Your task to perform on an android device: Open calendar and show me the third week of next month Image 0: 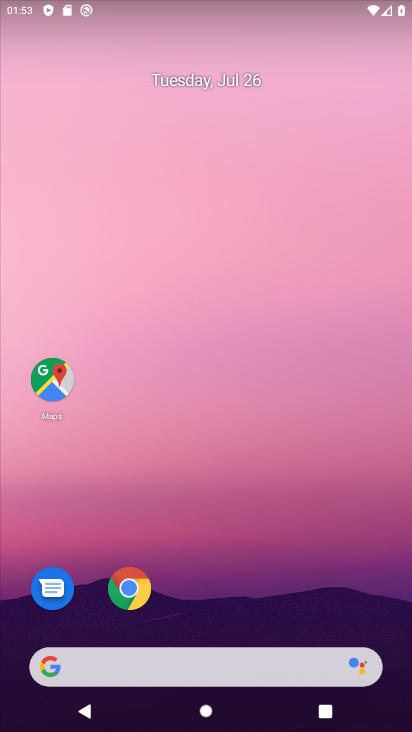
Step 0: drag from (268, 619) to (209, 231)
Your task to perform on an android device: Open calendar and show me the third week of next month Image 1: 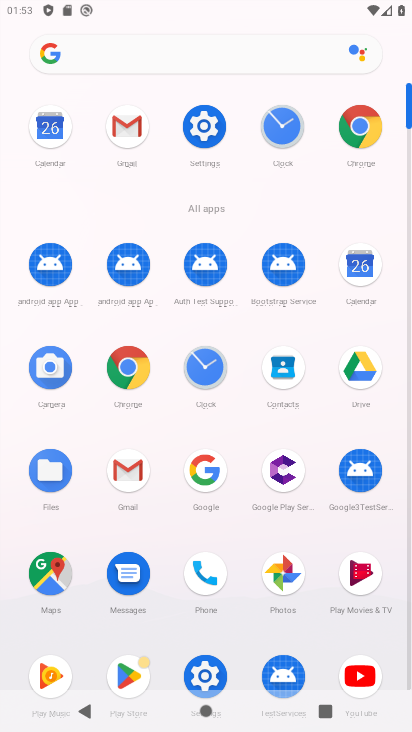
Step 1: click (368, 262)
Your task to perform on an android device: Open calendar and show me the third week of next month Image 2: 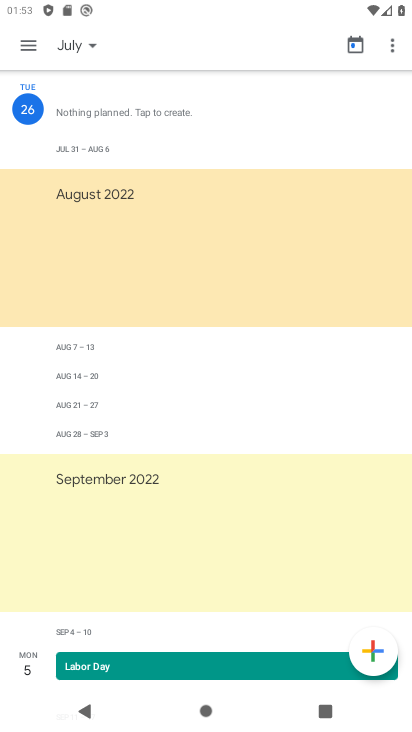
Step 2: click (21, 47)
Your task to perform on an android device: Open calendar and show me the third week of next month Image 3: 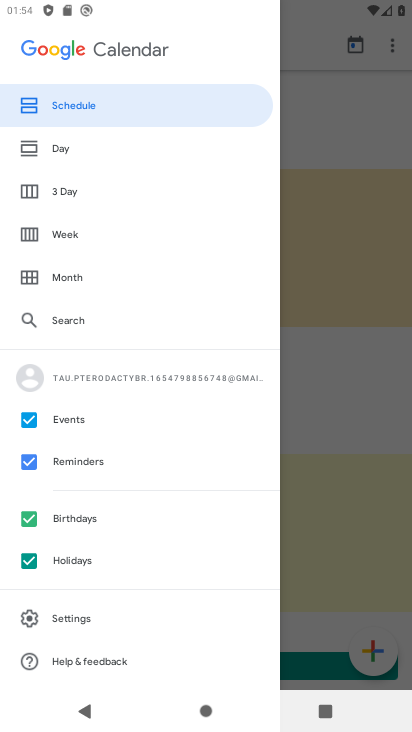
Step 3: click (97, 230)
Your task to perform on an android device: Open calendar and show me the third week of next month Image 4: 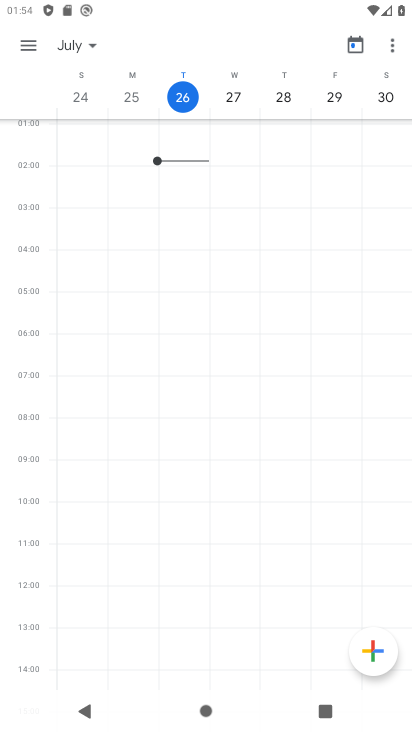
Step 4: click (87, 47)
Your task to perform on an android device: Open calendar and show me the third week of next month Image 5: 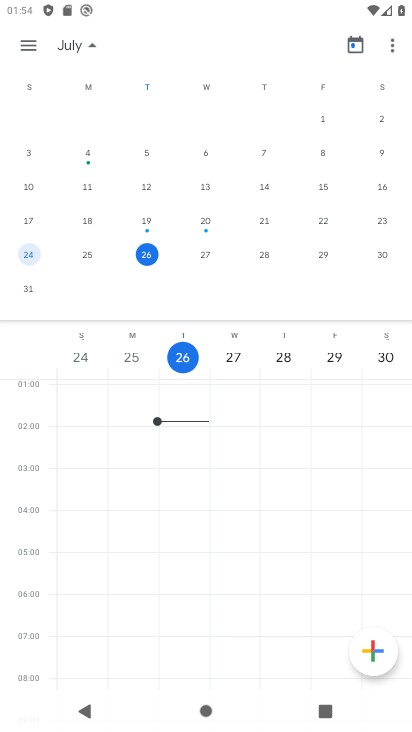
Step 5: drag from (388, 200) to (4, 196)
Your task to perform on an android device: Open calendar and show me the third week of next month Image 6: 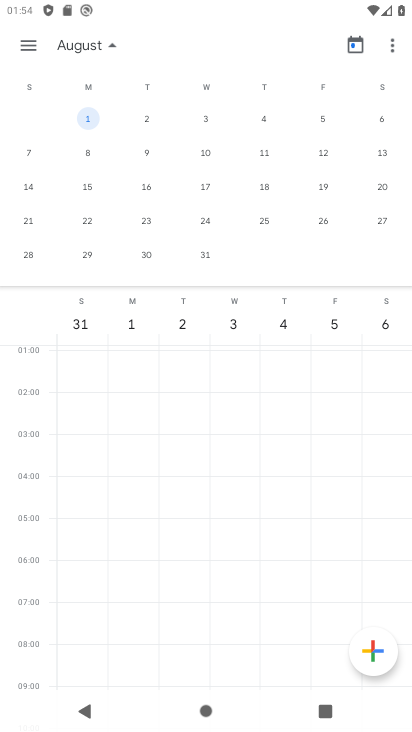
Step 6: click (207, 188)
Your task to perform on an android device: Open calendar and show me the third week of next month Image 7: 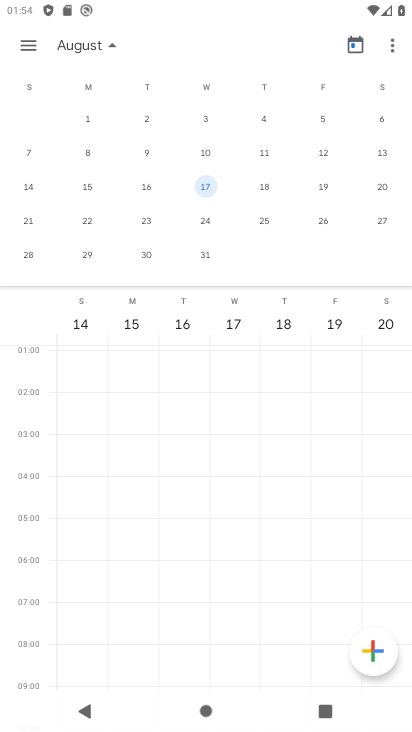
Step 7: task complete